Your task to perform on an android device: What's on my calendar today? Image 0: 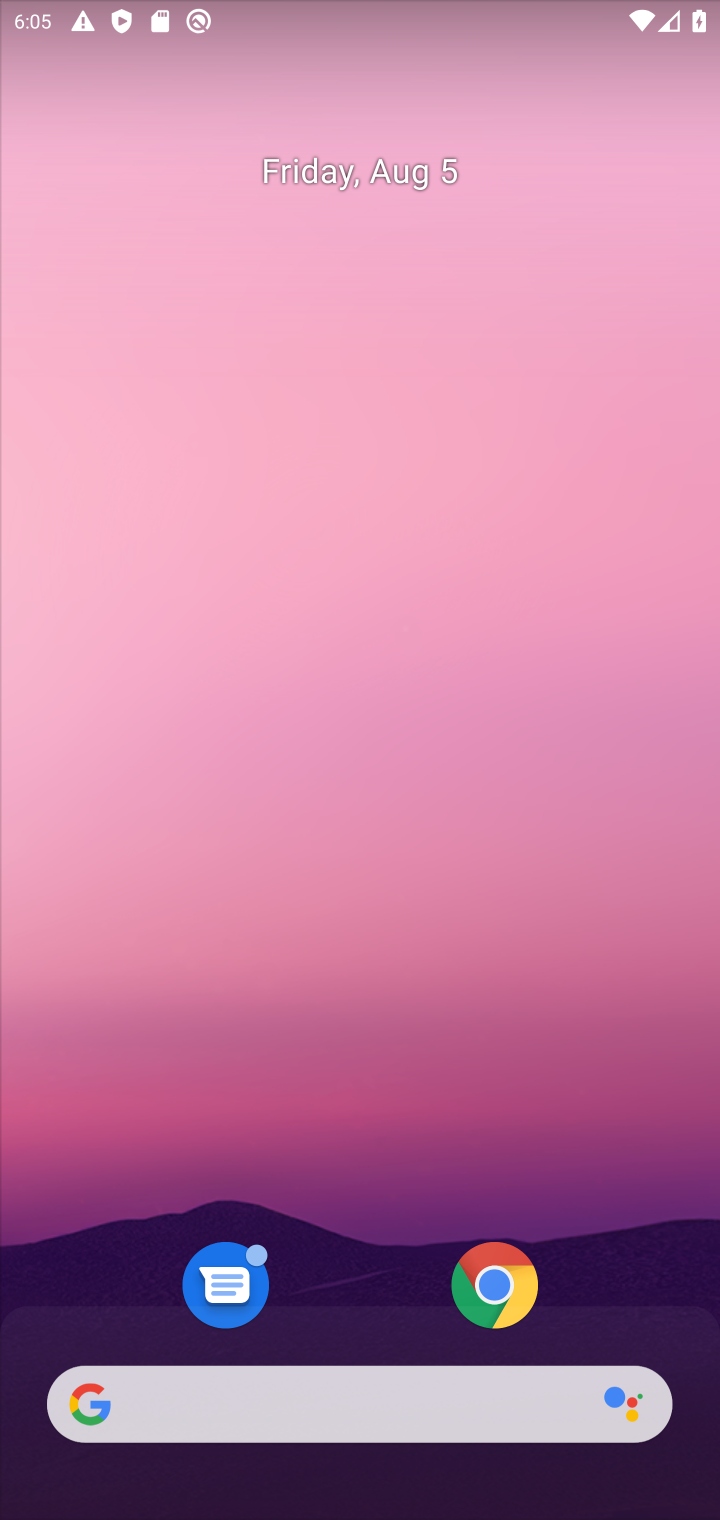
Step 0: drag from (345, 1206) to (338, 116)
Your task to perform on an android device: What's on my calendar today? Image 1: 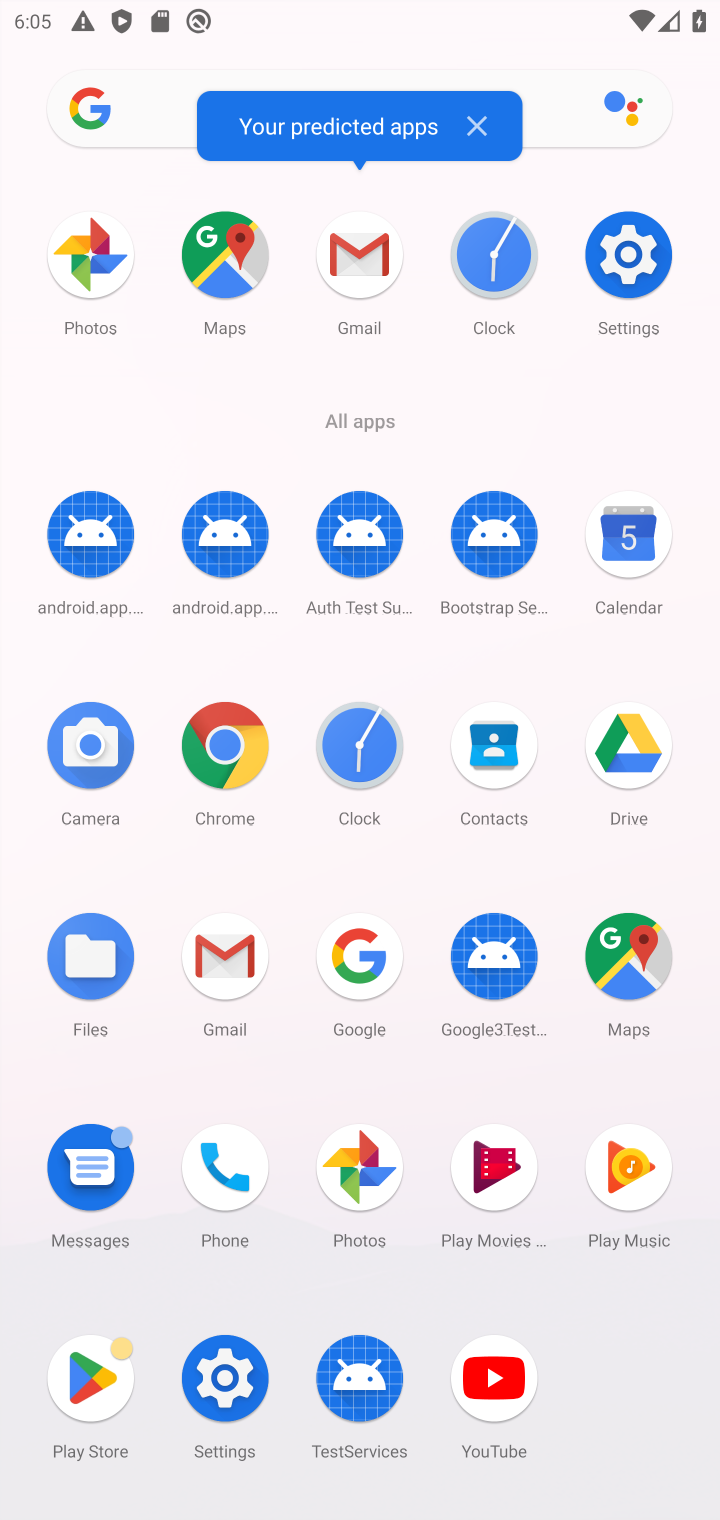
Step 1: click (635, 528)
Your task to perform on an android device: What's on my calendar today? Image 2: 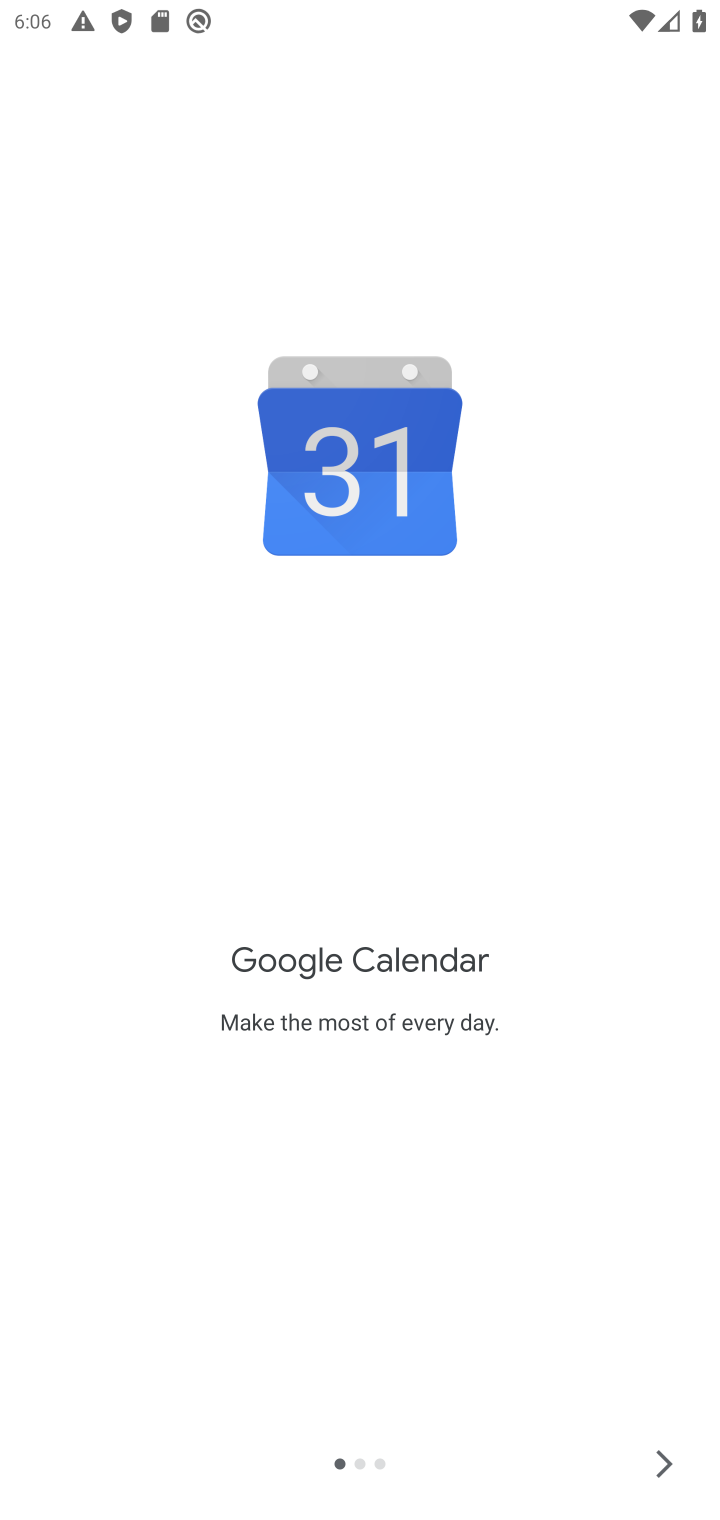
Step 2: click (652, 1443)
Your task to perform on an android device: What's on my calendar today? Image 3: 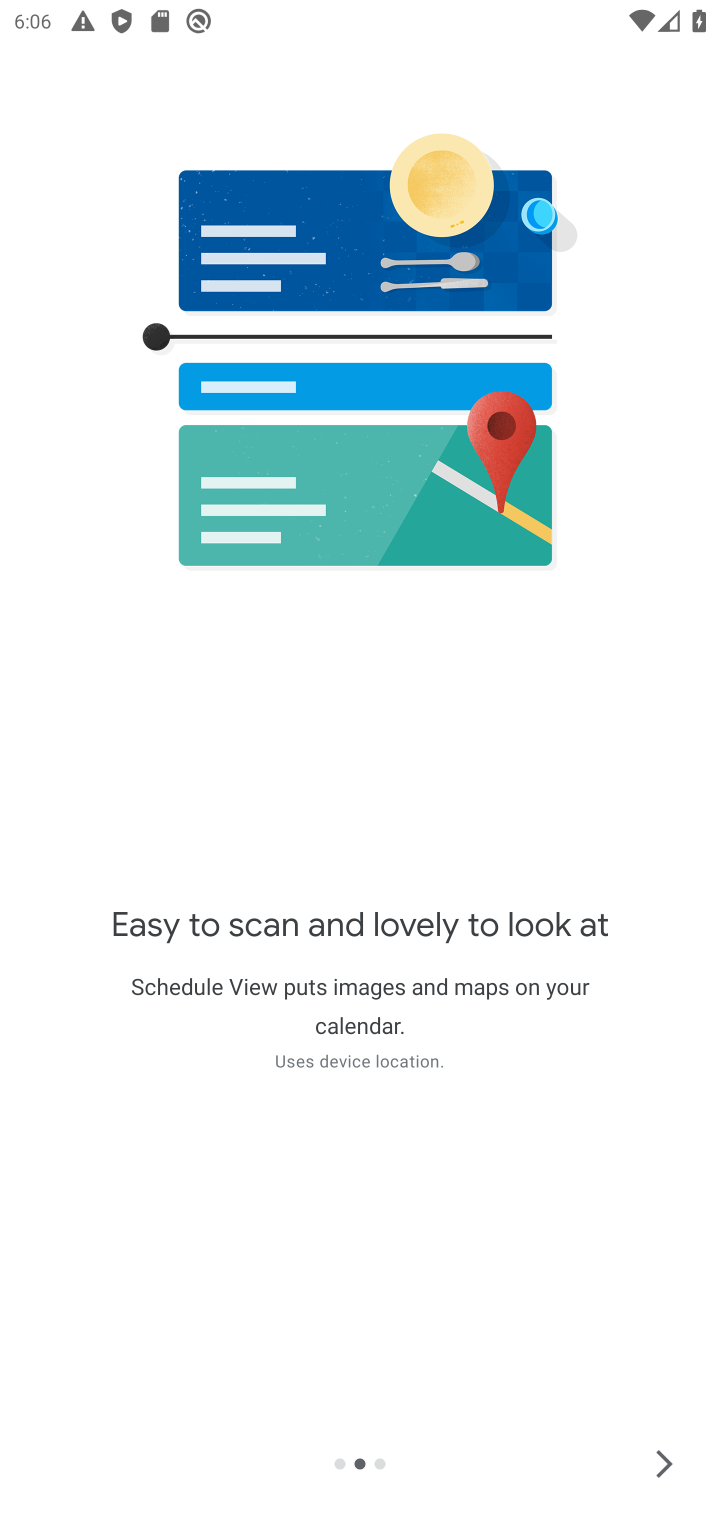
Step 3: click (652, 1443)
Your task to perform on an android device: What's on my calendar today? Image 4: 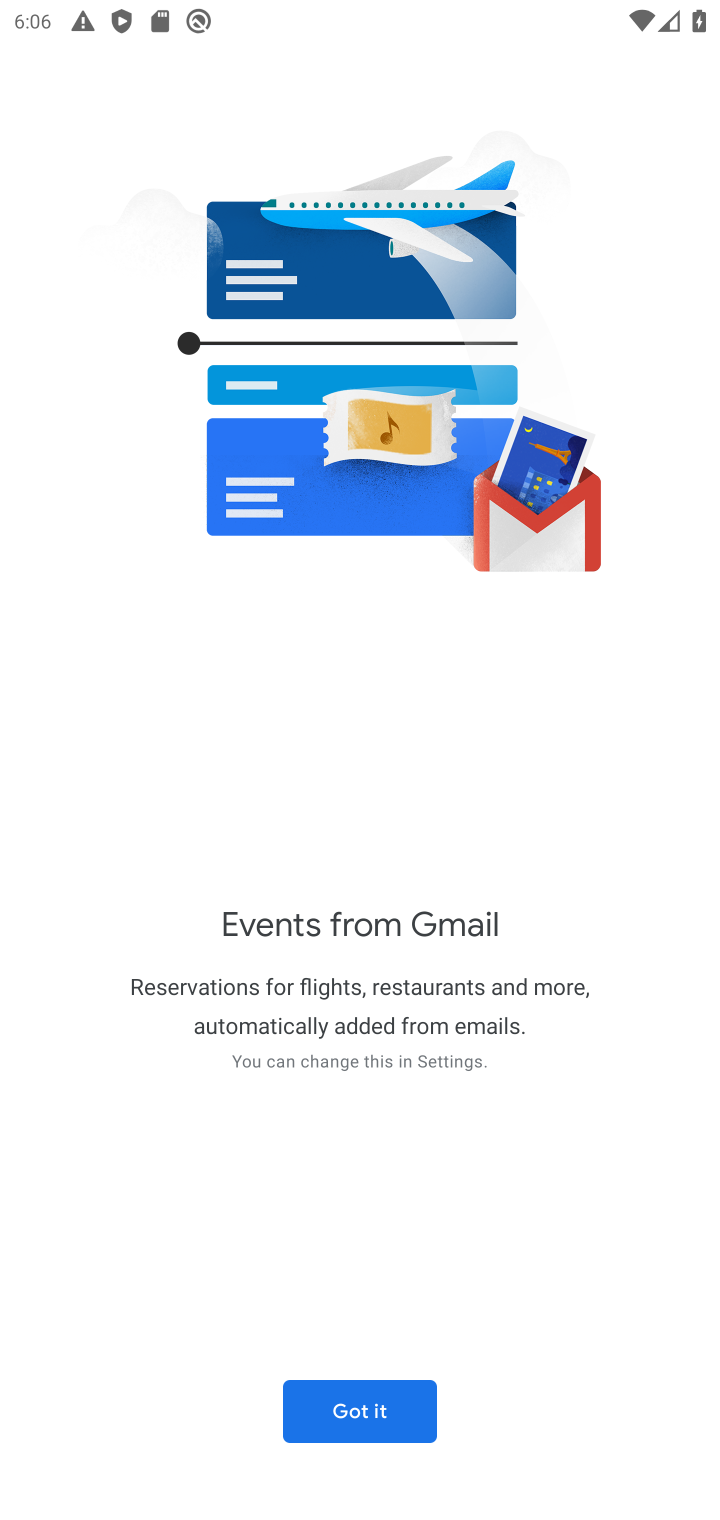
Step 4: click (375, 1408)
Your task to perform on an android device: What's on my calendar today? Image 5: 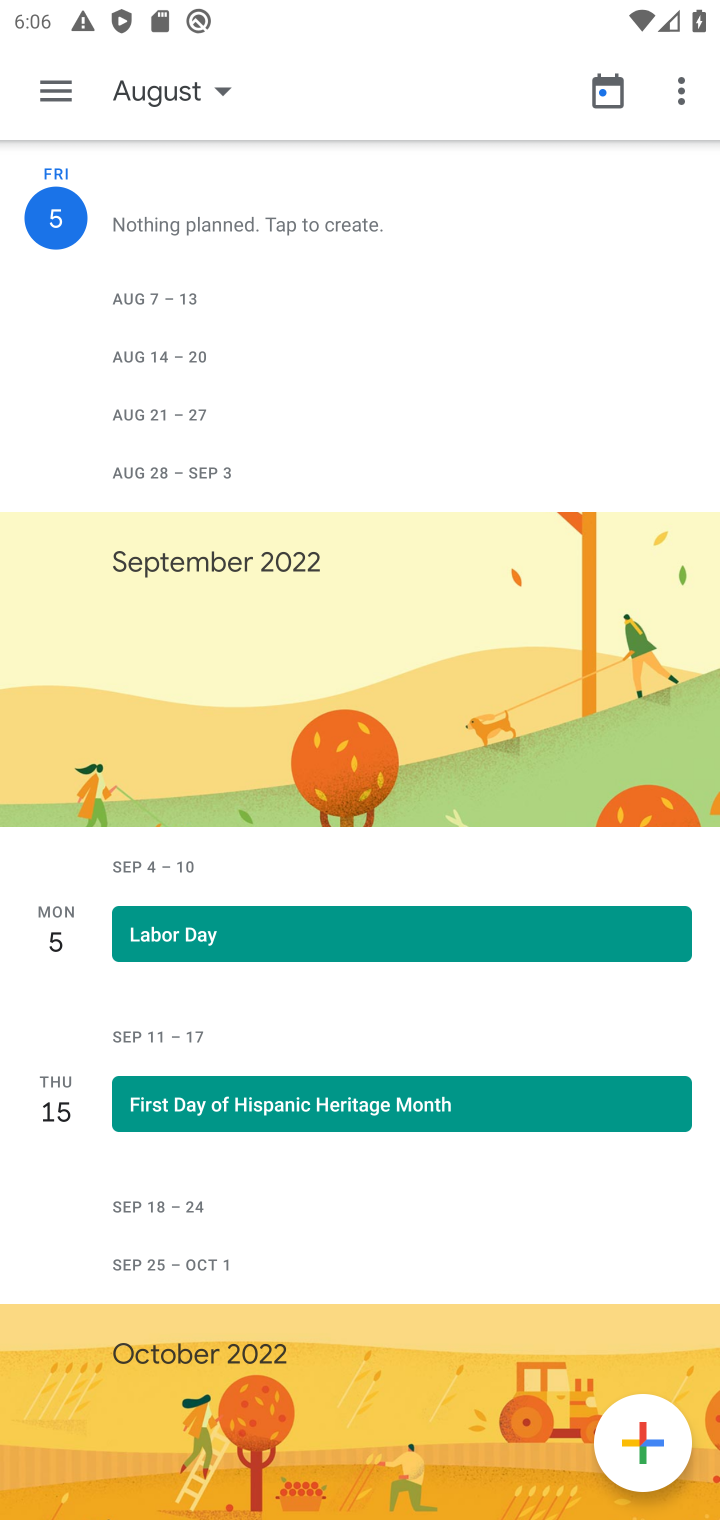
Step 5: click (231, 89)
Your task to perform on an android device: What's on my calendar today? Image 6: 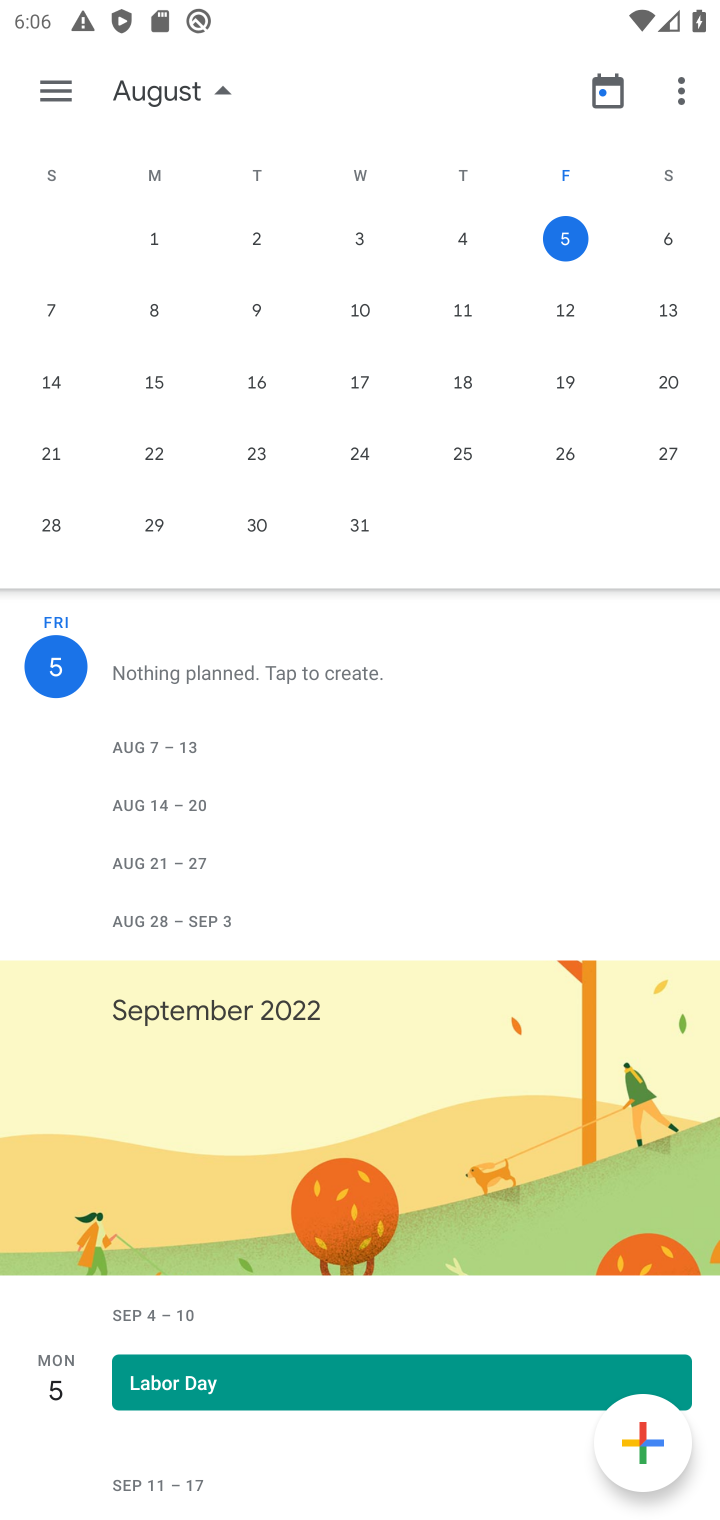
Step 6: click (555, 225)
Your task to perform on an android device: What's on my calendar today? Image 7: 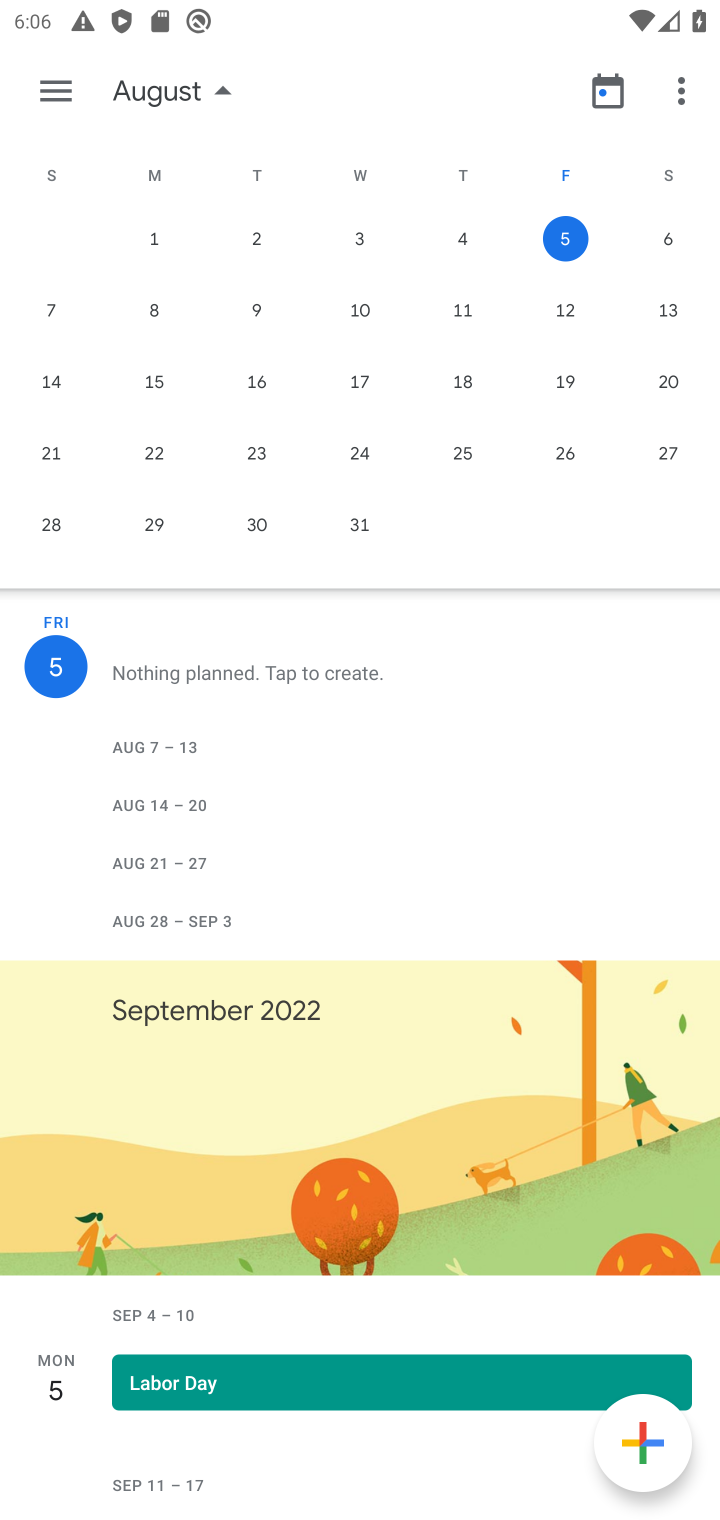
Step 7: task complete